Your task to perform on an android device: Go to Yahoo.com Image 0: 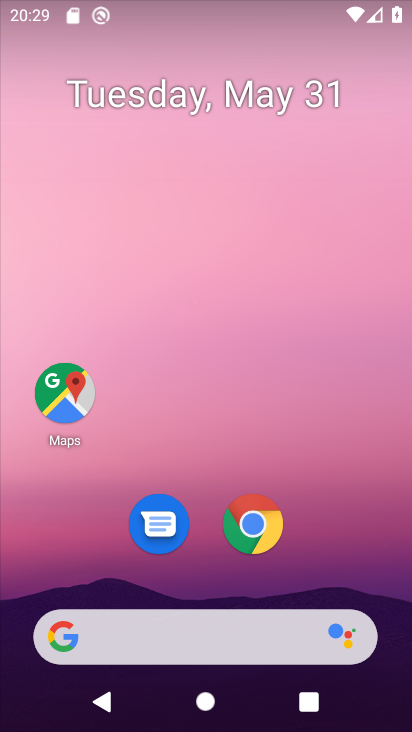
Step 0: click (248, 643)
Your task to perform on an android device: Go to Yahoo.com Image 1: 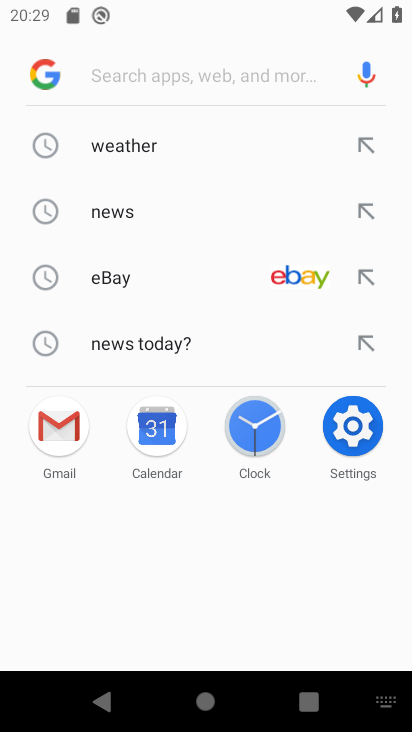
Step 1: type "yahoo.com"
Your task to perform on an android device: Go to Yahoo.com Image 2: 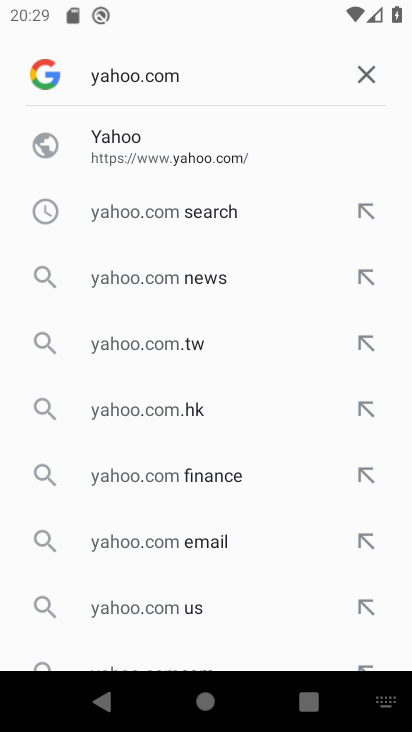
Step 2: click (153, 160)
Your task to perform on an android device: Go to Yahoo.com Image 3: 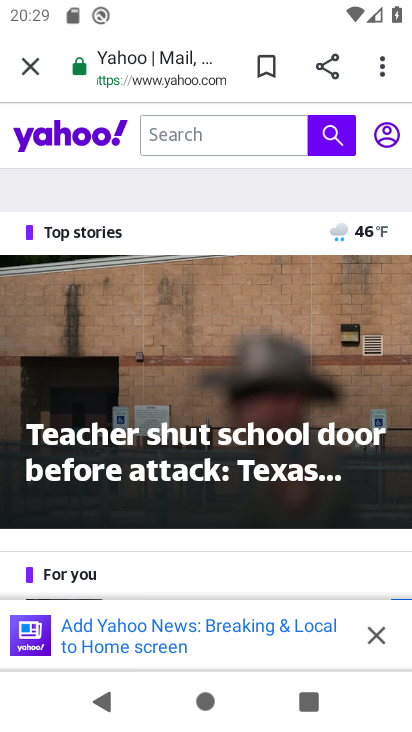
Step 3: task complete